Your task to perform on an android device: Check the news Image 0: 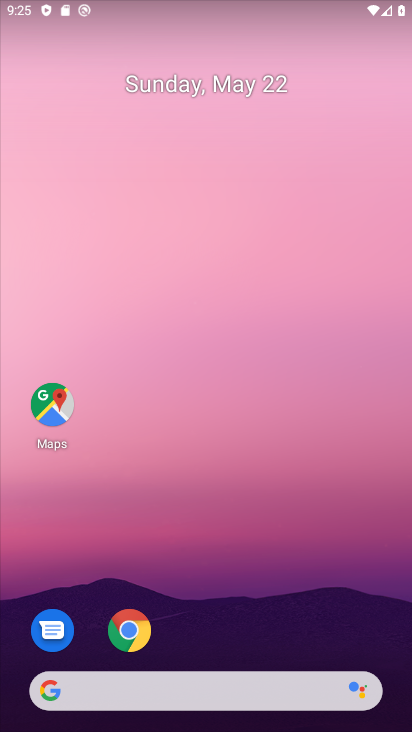
Step 0: drag from (0, 241) to (410, 232)
Your task to perform on an android device: Check the news Image 1: 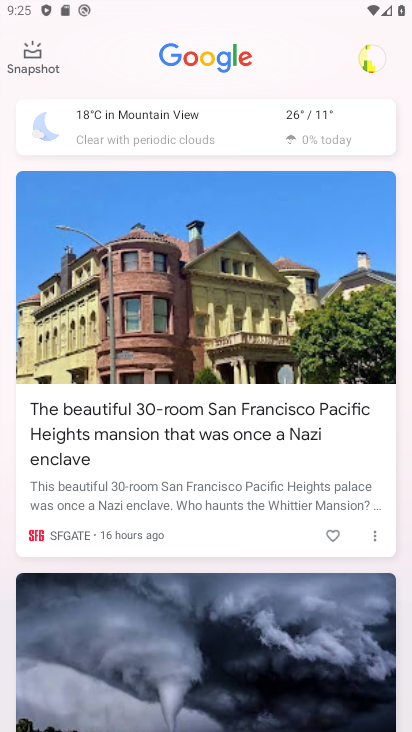
Step 1: task complete